Your task to perform on an android device: see creations saved in the google photos Image 0: 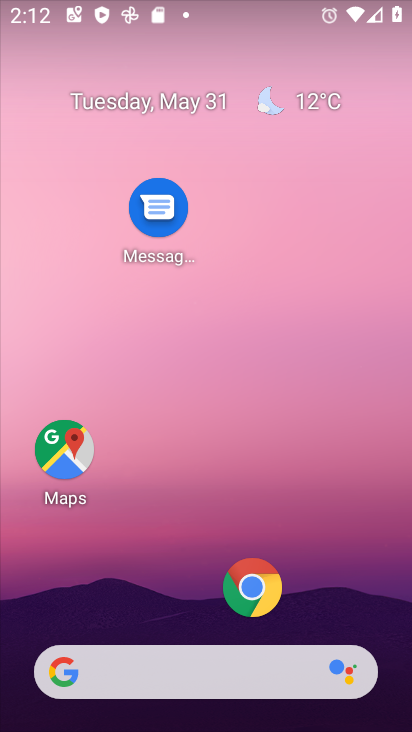
Step 0: drag from (182, 605) to (101, 32)
Your task to perform on an android device: see creations saved in the google photos Image 1: 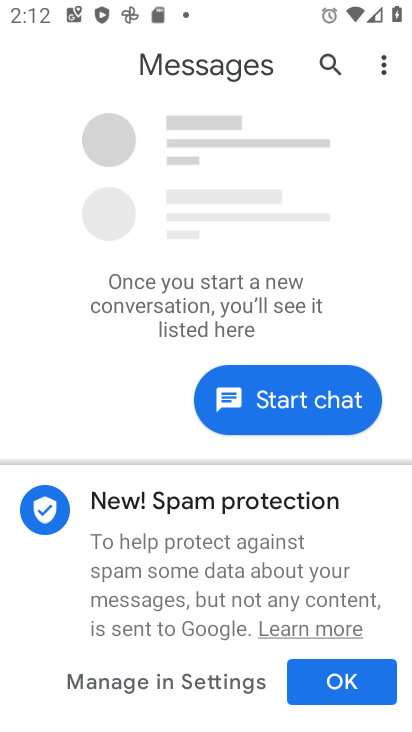
Step 1: drag from (183, 609) to (114, 135)
Your task to perform on an android device: see creations saved in the google photos Image 2: 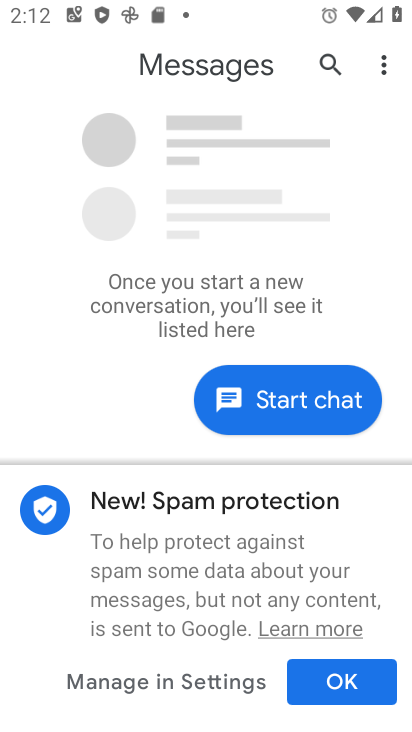
Step 2: drag from (185, 160) to (206, 470)
Your task to perform on an android device: see creations saved in the google photos Image 3: 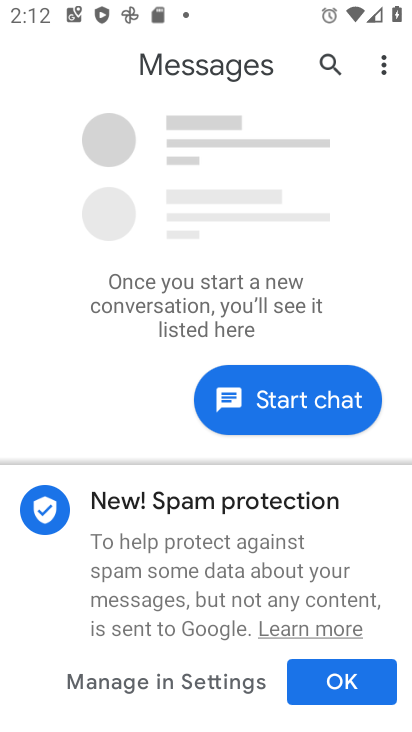
Step 3: drag from (200, 624) to (200, 269)
Your task to perform on an android device: see creations saved in the google photos Image 4: 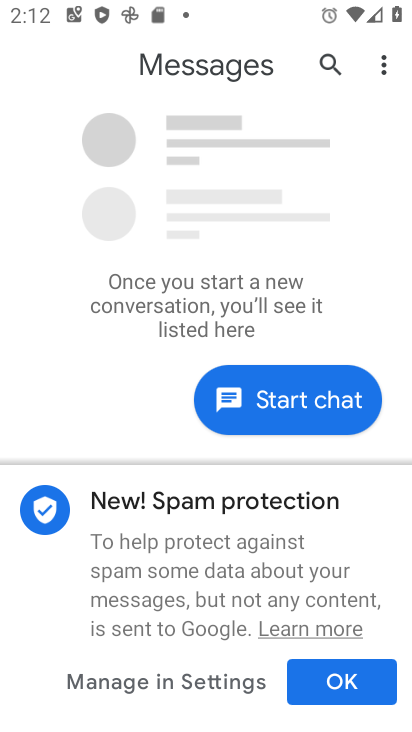
Step 4: click (156, 317)
Your task to perform on an android device: see creations saved in the google photos Image 5: 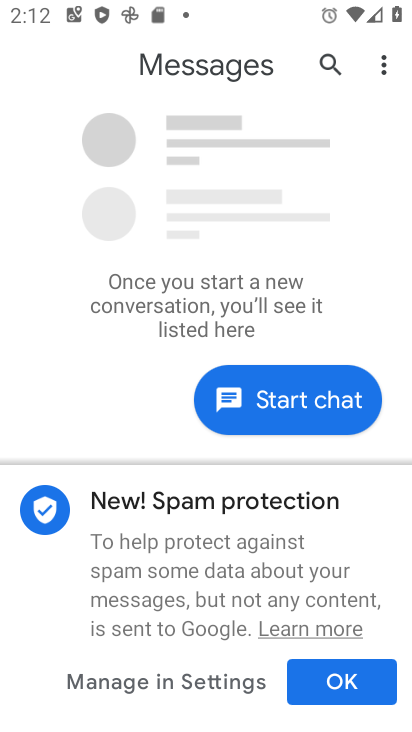
Step 5: drag from (171, 240) to (336, 504)
Your task to perform on an android device: see creations saved in the google photos Image 6: 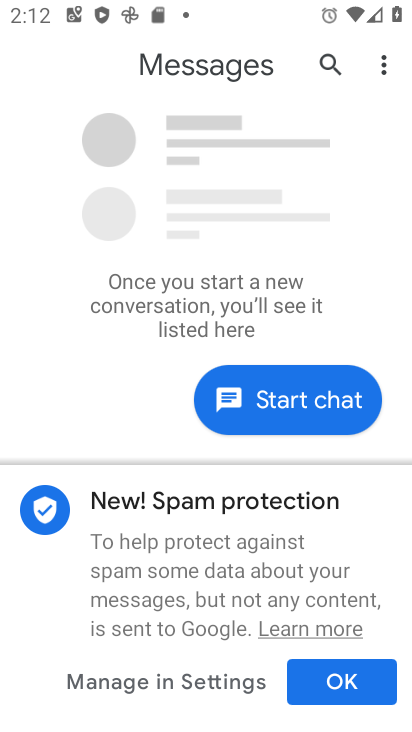
Step 6: press home button
Your task to perform on an android device: see creations saved in the google photos Image 7: 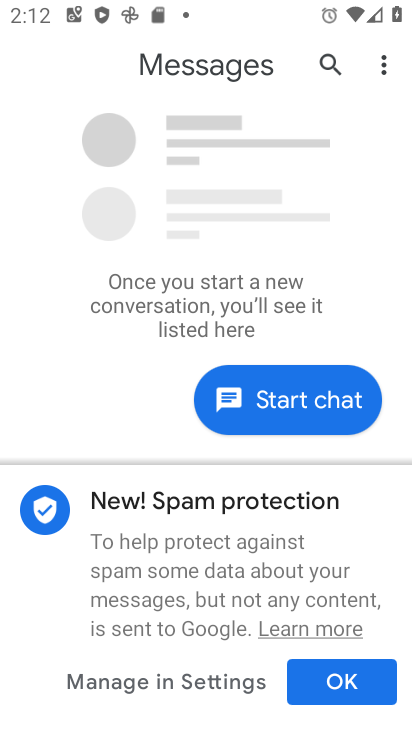
Step 7: click (407, 558)
Your task to perform on an android device: see creations saved in the google photos Image 8: 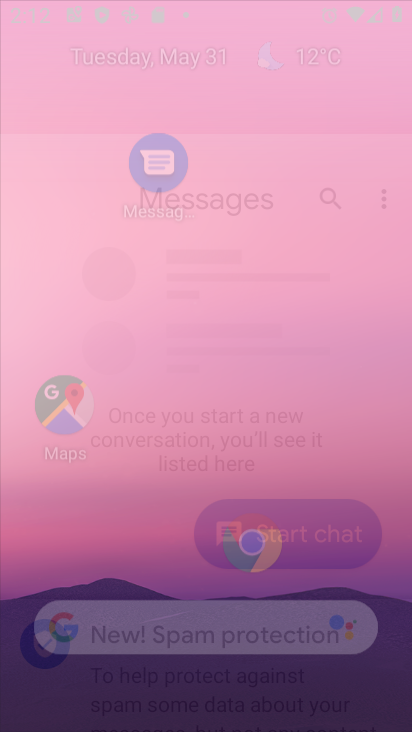
Step 8: drag from (197, 661) to (285, 253)
Your task to perform on an android device: see creations saved in the google photos Image 9: 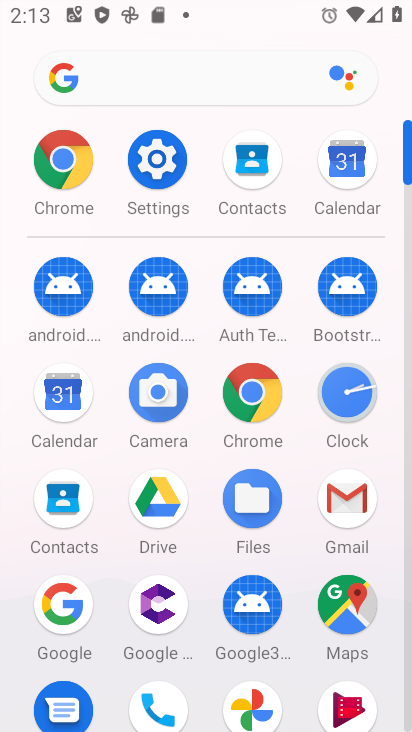
Step 9: click (274, 685)
Your task to perform on an android device: see creations saved in the google photos Image 10: 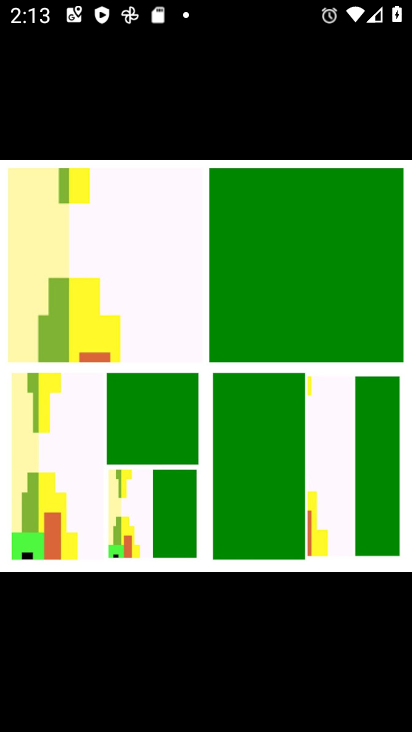
Step 10: drag from (326, 478) to (0, 514)
Your task to perform on an android device: see creations saved in the google photos Image 11: 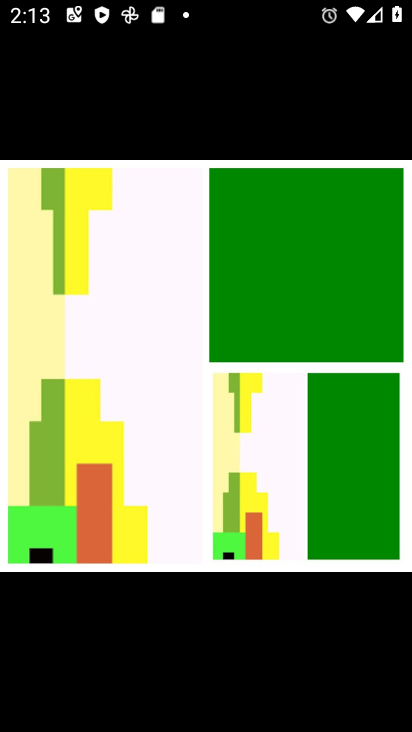
Step 11: click (244, 272)
Your task to perform on an android device: see creations saved in the google photos Image 12: 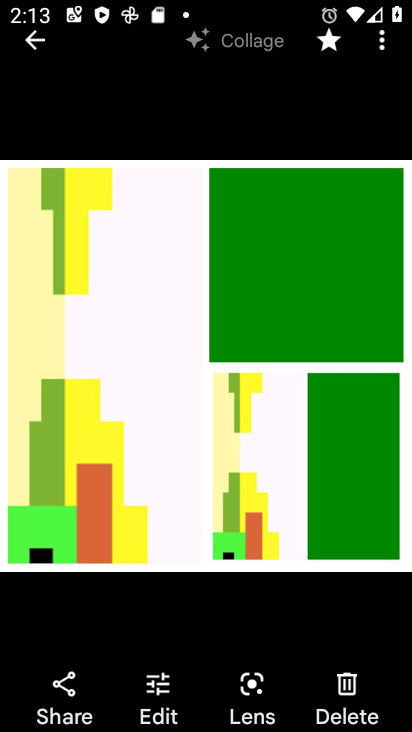
Step 12: task complete